Your task to perform on an android device: What's the weather? Image 0: 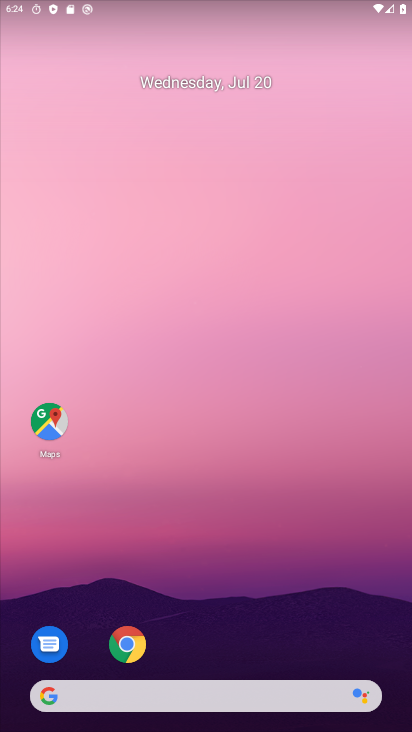
Step 0: press home button
Your task to perform on an android device: What's the weather? Image 1: 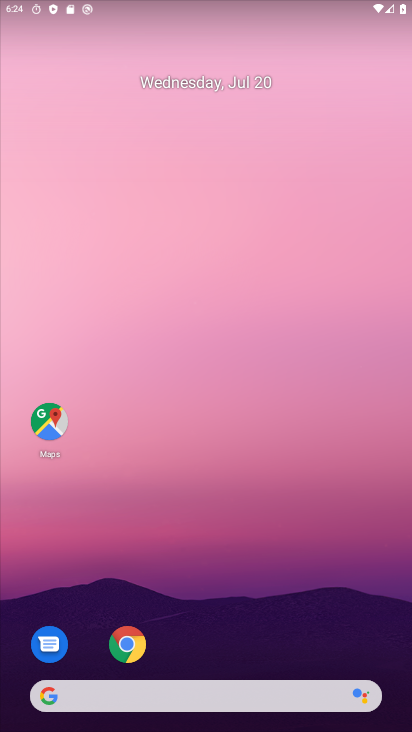
Step 1: press home button
Your task to perform on an android device: What's the weather? Image 2: 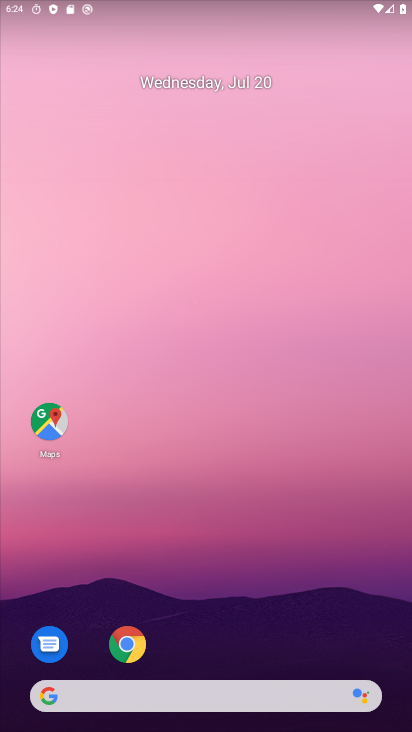
Step 2: click (49, 697)
Your task to perform on an android device: What's the weather? Image 3: 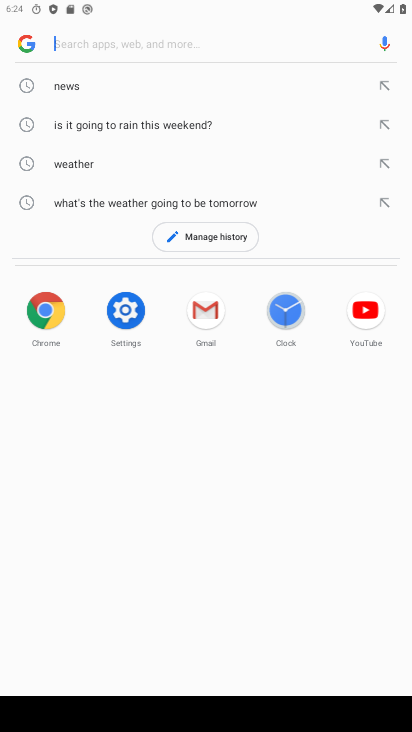
Step 3: click (73, 165)
Your task to perform on an android device: What's the weather? Image 4: 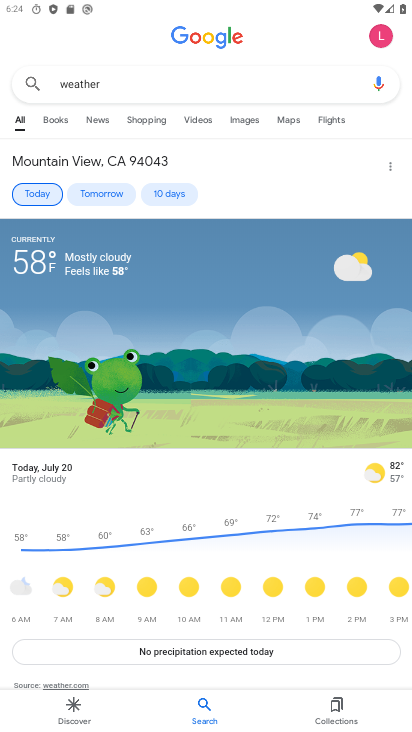
Step 4: task complete